Your task to perform on an android device: Open CNN.com Image 0: 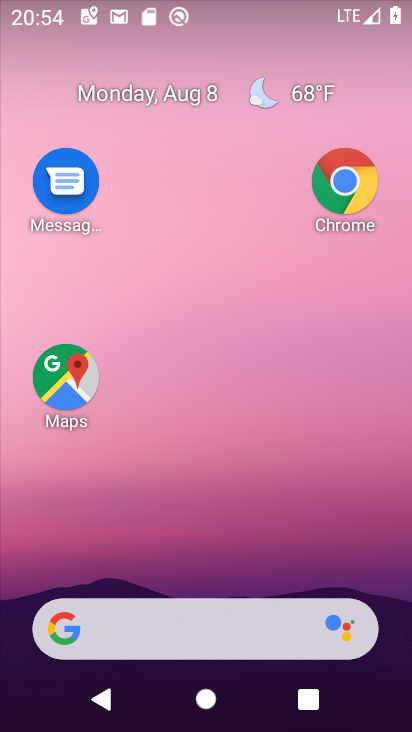
Step 0: click (354, 169)
Your task to perform on an android device: Open CNN.com Image 1: 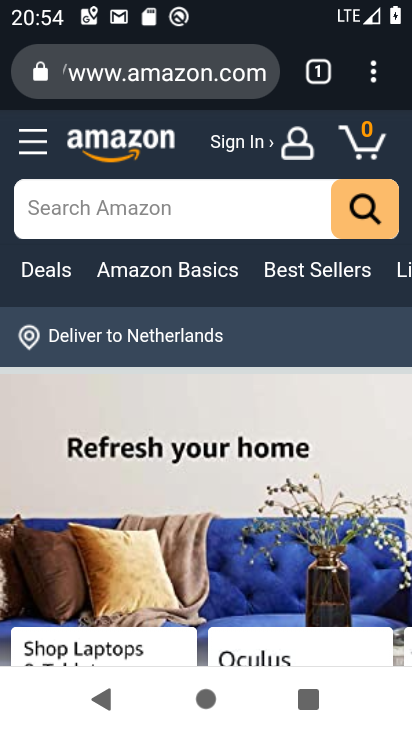
Step 1: click (320, 65)
Your task to perform on an android device: Open CNN.com Image 2: 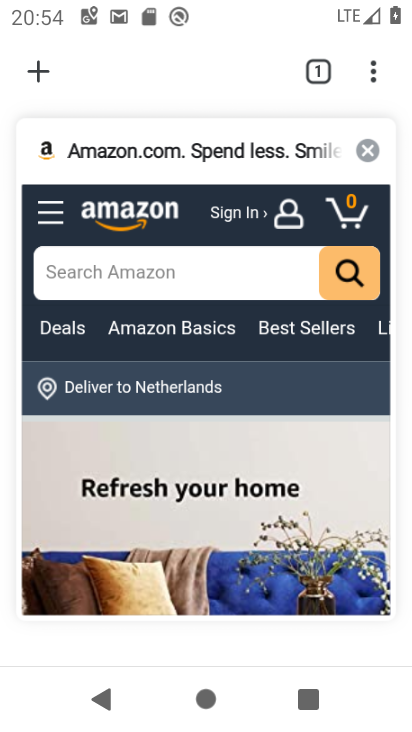
Step 2: click (39, 72)
Your task to perform on an android device: Open CNN.com Image 3: 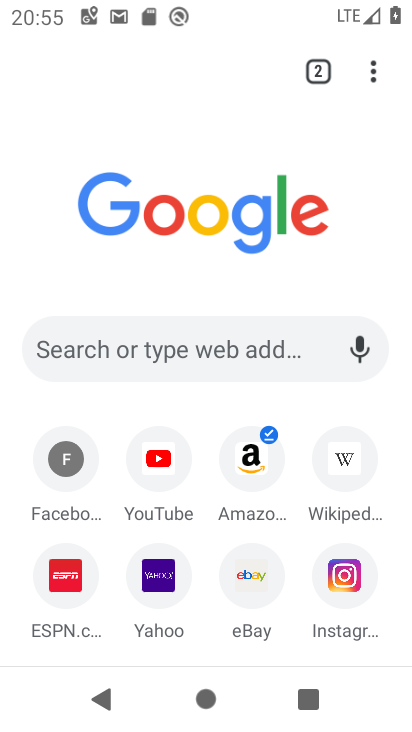
Step 3: type "CNN.com"
Your task to perform on an android device: Open CNN.com Image 4: 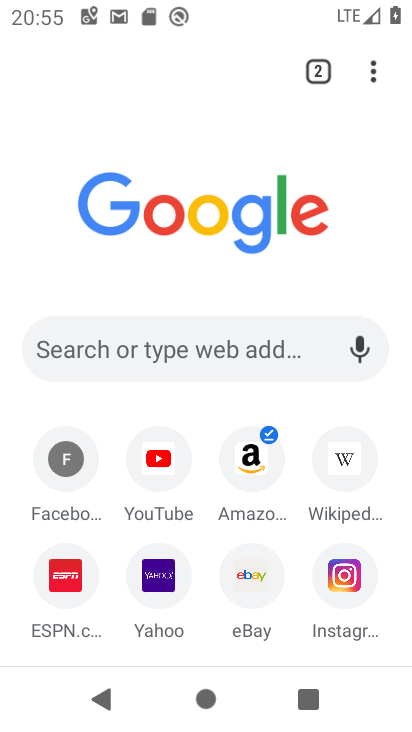
Step 4: click (241, 330)
Your task to perform on an android device: Open CNN.com Image 5: 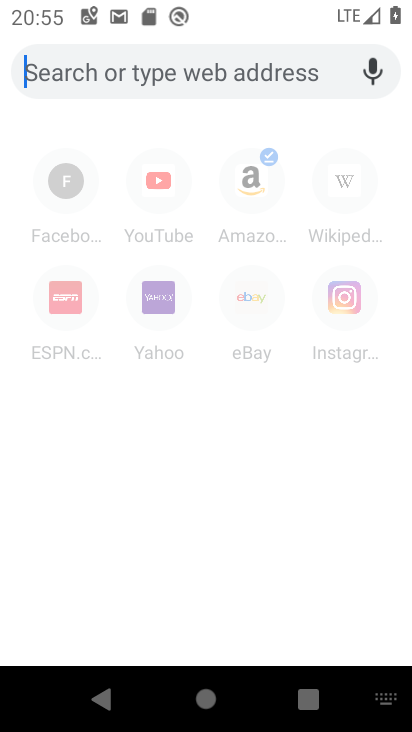
Step 5: type "CNN.com"
Your task to perform on an android device: Open CNN.com Image 6: 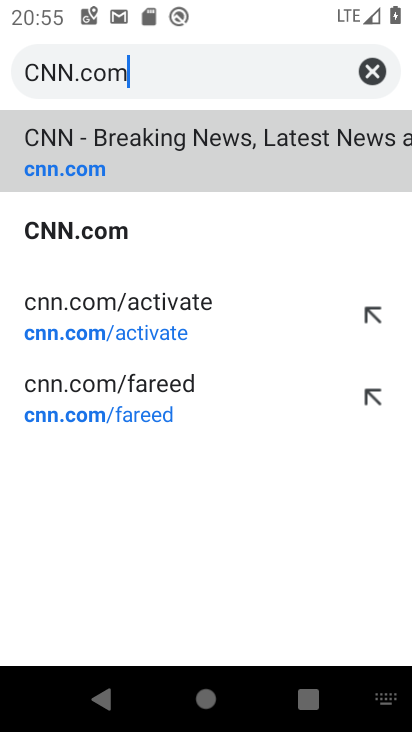
Step 6: click (164, 157)
Your task to perform on an android device: Open CNN.com Image 7: 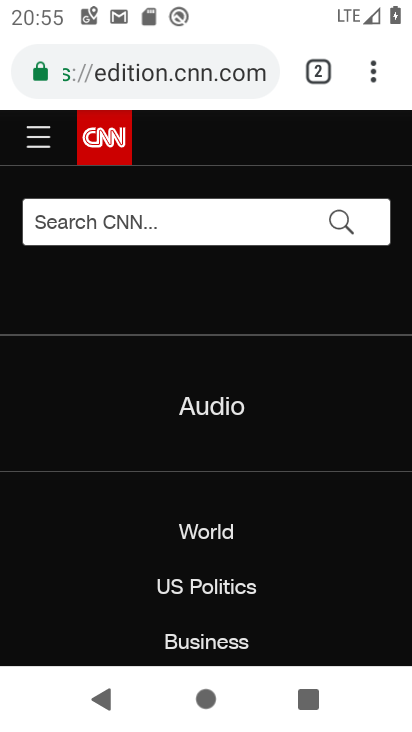
Step 7: task complete